Your task to perform on an android device: change your default location settings in chrome Image 0: 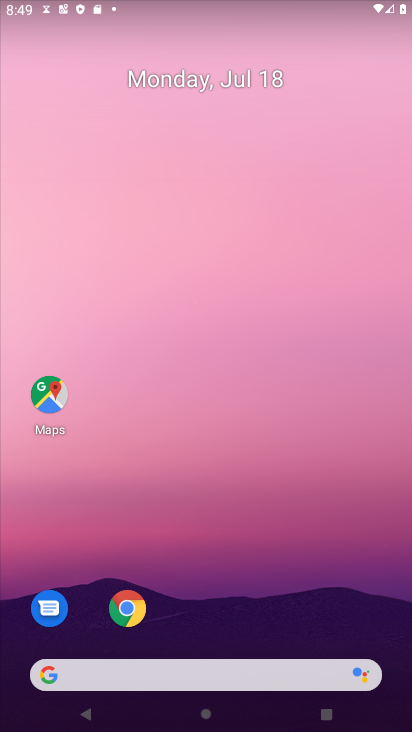
Step 0: click (128, 612)
Your task to perform on an android device: change your default location settings in chrome Image 1: 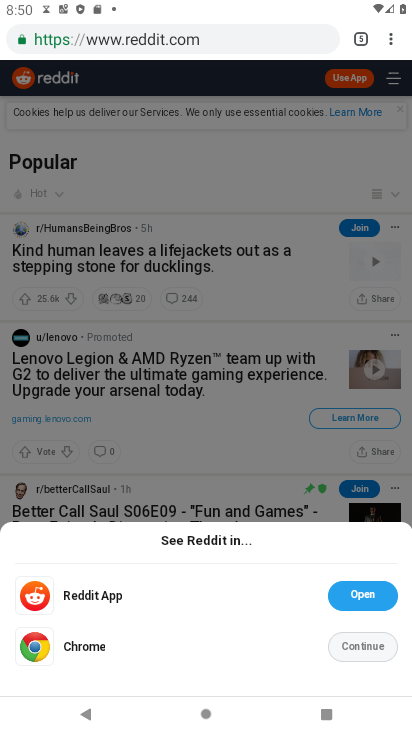
Step 1: click (390, 45)
Your task to perform on an android device: change your default location settings in chrome Image 2: 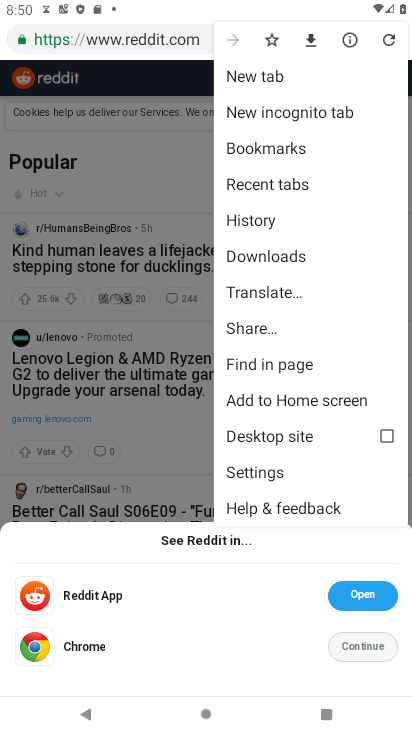
Step 2: click (244, 469)
Your task to perform on an android device: change your default location settings in chrome Image 3: 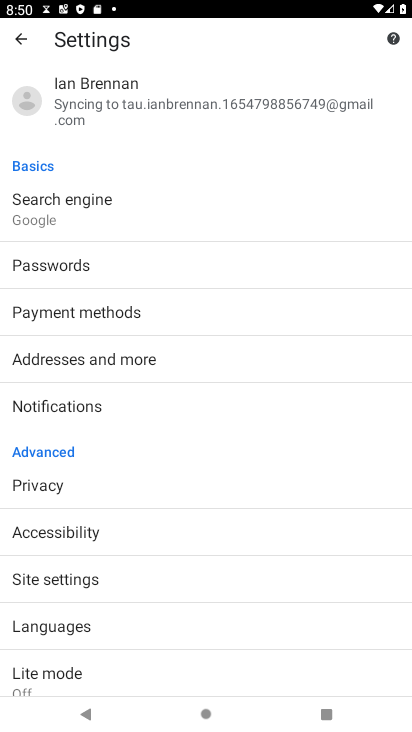
Step 3: click (46, 576)
Your task to perform on an android device: change your default location settings in chrome Image 4: 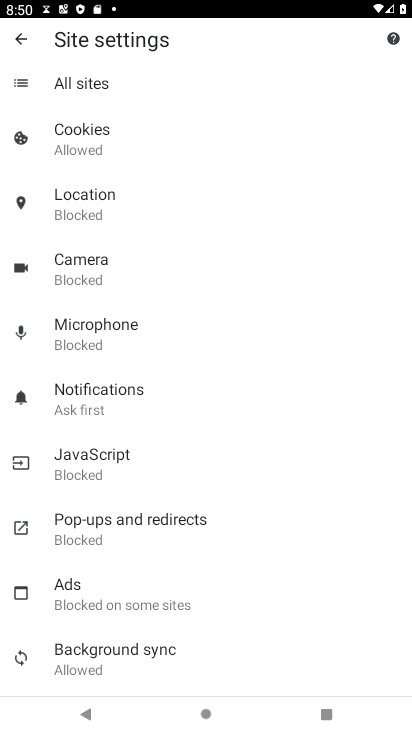
Step 4: click (82, 200)
Your task to perform on an android device: change your default location settings in chrome Image 5: 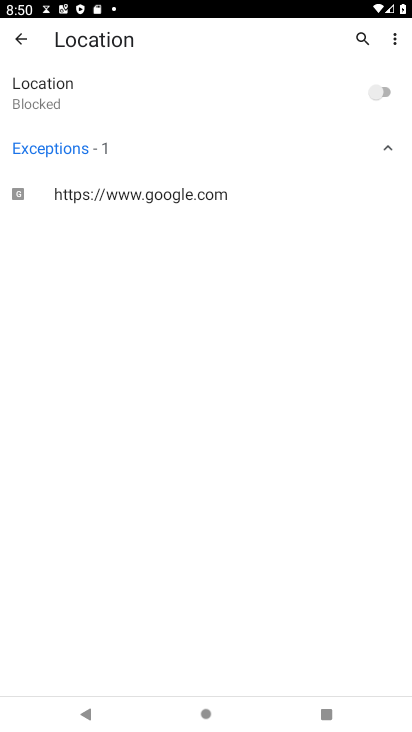
Step 5: click (380, 90)
Your task to perform on an android device: change your default location settings in chrome Image 6: 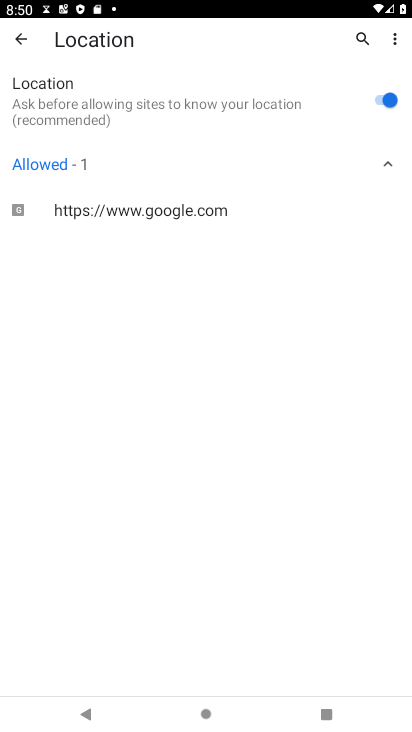
Step 6: task complete